Your task to perform on an android device: turn off translation in the chrome app Image 0: 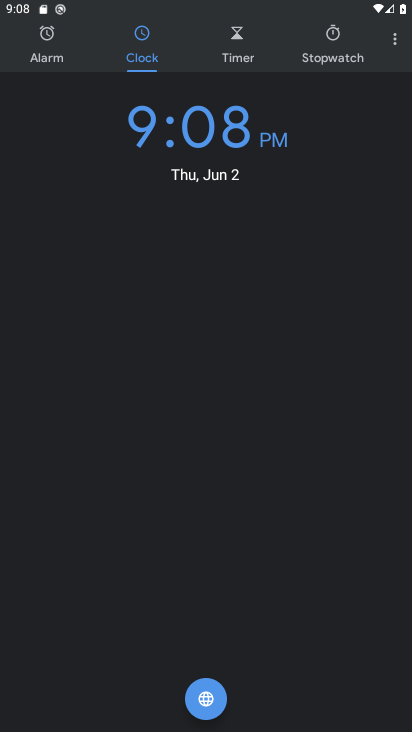
Step 0: press home button
Your task to perform on an android device: turn off translation in the chrome app Image 1: 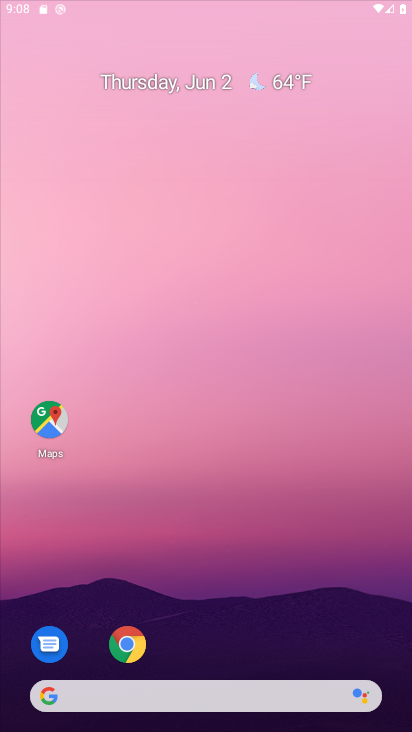
Step 1: press home button
Your task to perform on an android device: turn off translation in the chrome app Image 2: 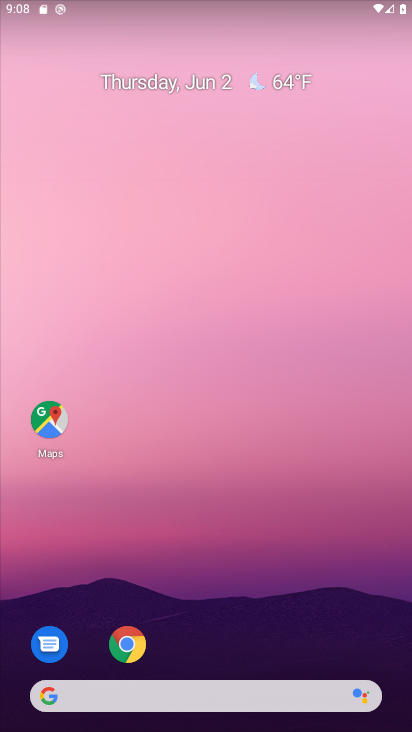
Step 2: click (121, 643)
Your task to perform on an android device: turn off translation in the chrome app Image 3: 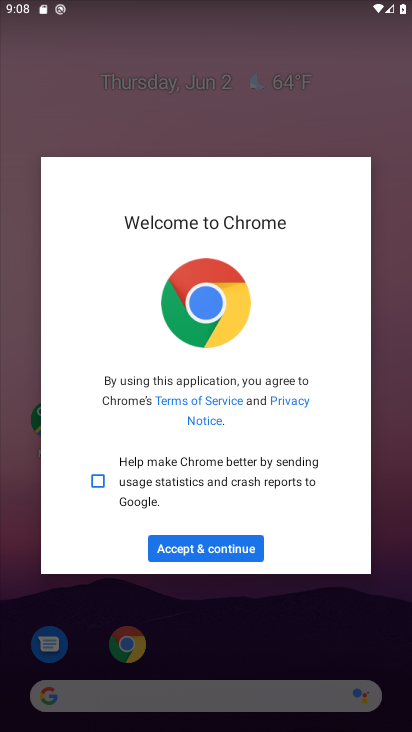
Step 3: click (185, 549)
Your task to perform on an android device: turn off translation in the chrome app Image 4: 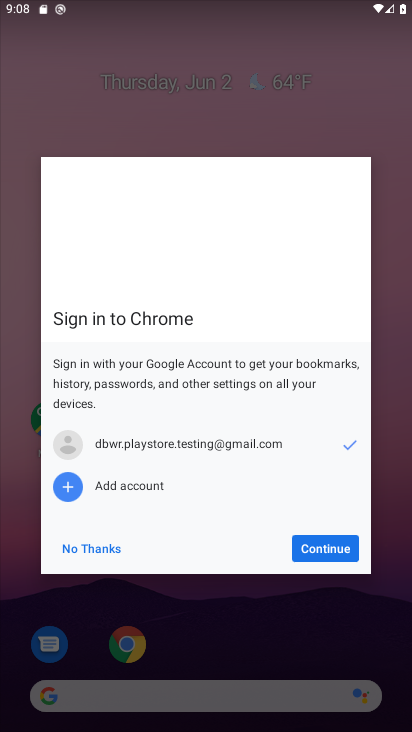
Step 4: click (311, 551)
Your task to perform on an android device: turn off translation in the chrome app Image 5: 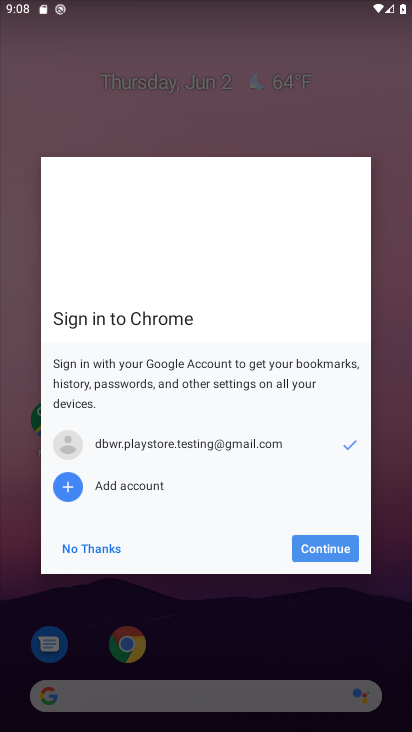
Step 5: click (311, 551)
Your task to perform on an android device: turn off translation in the chrome app Image 6: 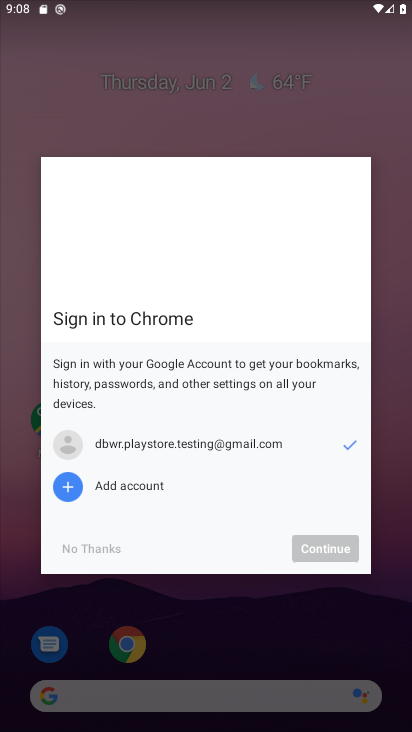
Step 6: click (311, 551)
Your task to perform on an android device: turn off translation in the chrome app Image 7: 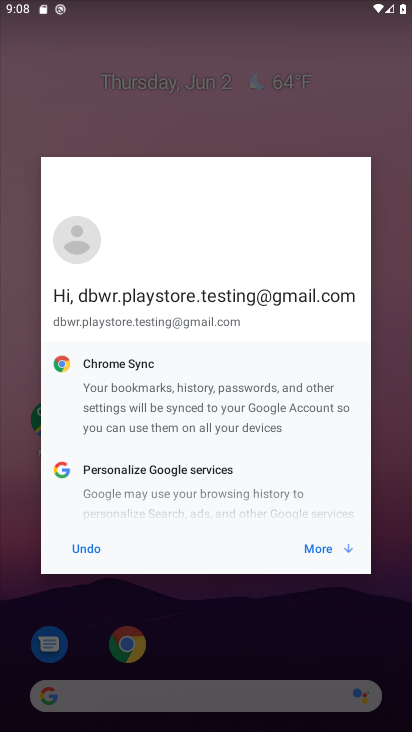
Step 7: click (311, 551)
Your task to perform on an android device: turn off translation in the chrome app Image 8: 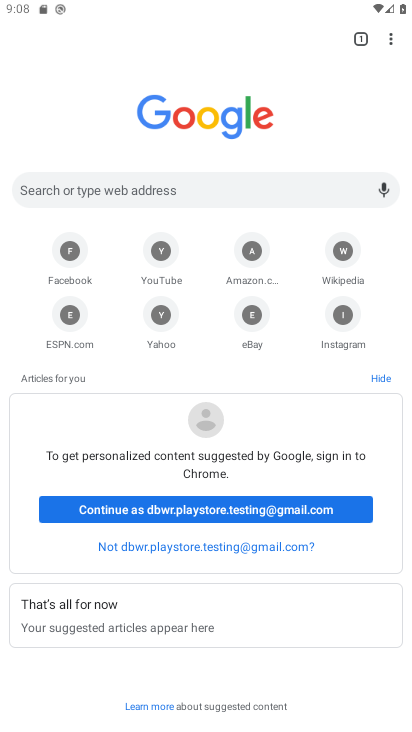
Step 8: drag from (390, 36) to (265, 332)
Your task to perform on an android device: turn off translation in the chrome app Image 9: 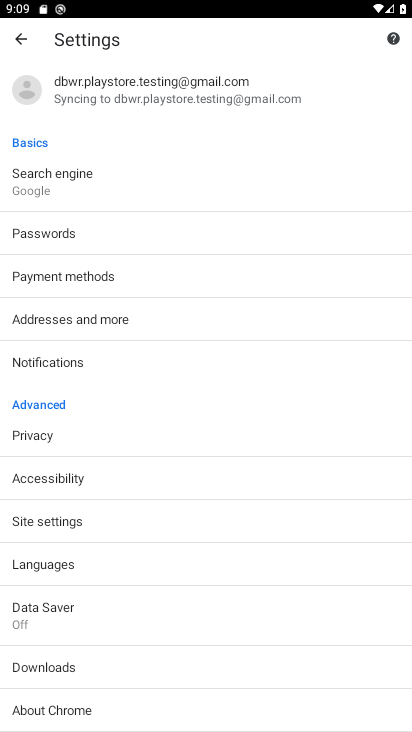
Step 9: click (93, 562)
Your task to perform on an android device: turn off translation in the chrome app Image 10: 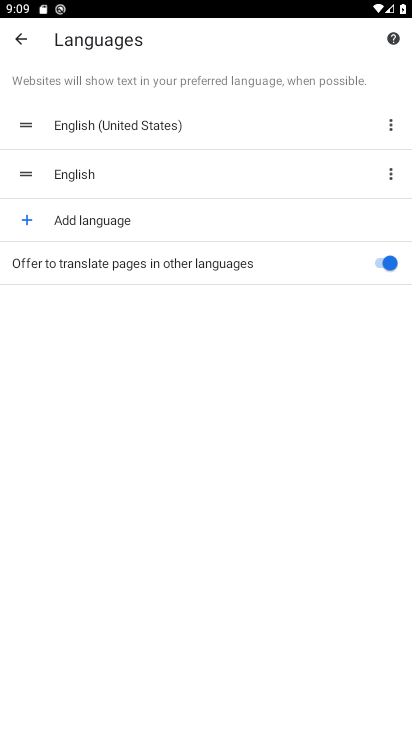
Step 10: click (314, 260)
Your task to perform on an android device: turn off translation in the chrome app Image 11: 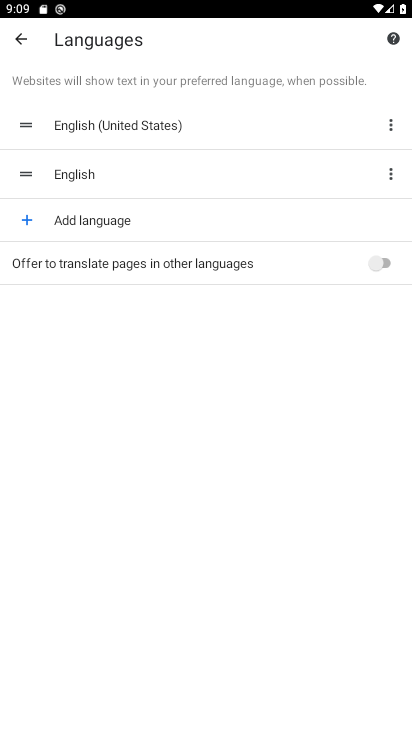
Step 11: task complete